Your task to perform on an android device: Open the calendar app, open the side menu, and click the "Day" option Image 0: 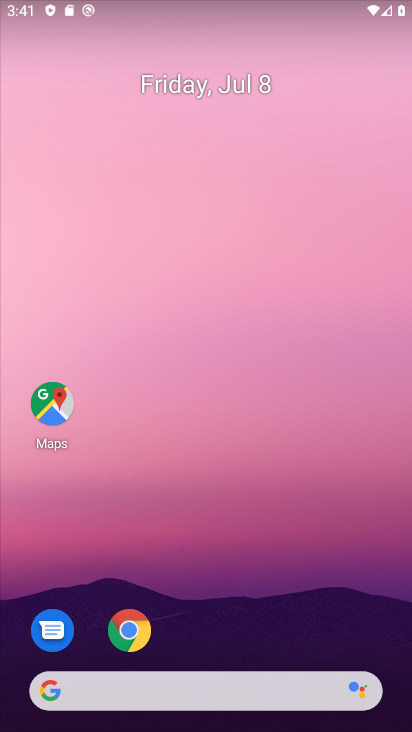
Step 0: drag from (21, 727) to (339, 47)
Your task to perform on an android device: Open the calendar app, open the side menu, and click the "Day" option Image 1: 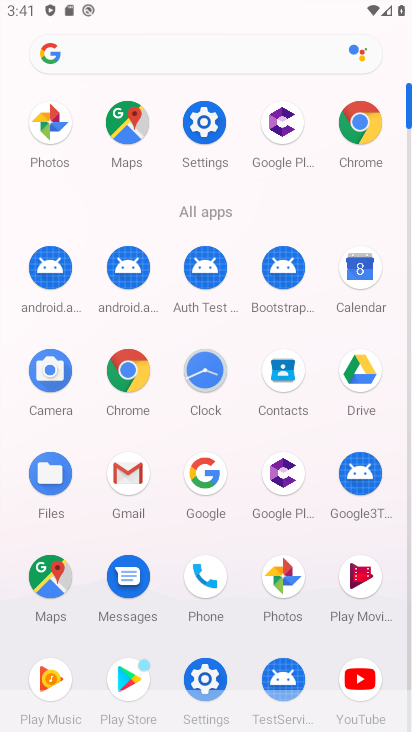
Step 1: click (363, 272)
Your task to perform on an android device: Open the calendar app, open the side menu, and click the "Day" option Image 2: 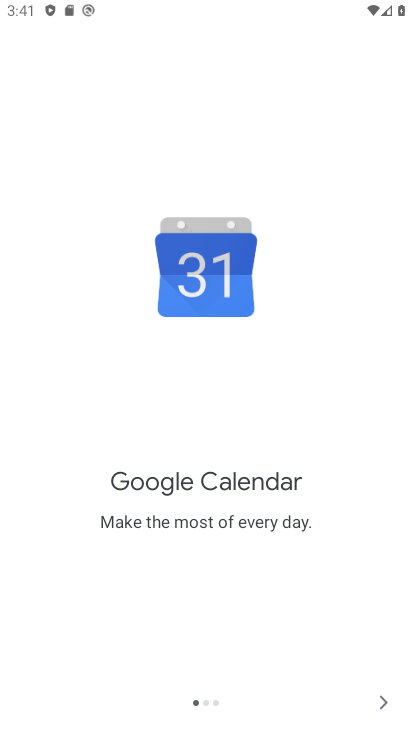
Step 2: click (387, 711)
Your task to perform on an android device: Open the calendar app, open the side menu, and click the "Day" option Image 3: 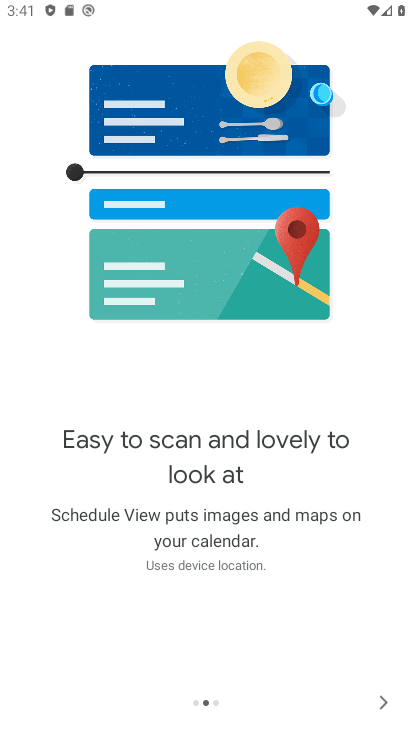
Step 3: click (376, 701)
Your task to perform on an android device: Open the calendar app, open the side menu, and click the "Day" option Image 4: 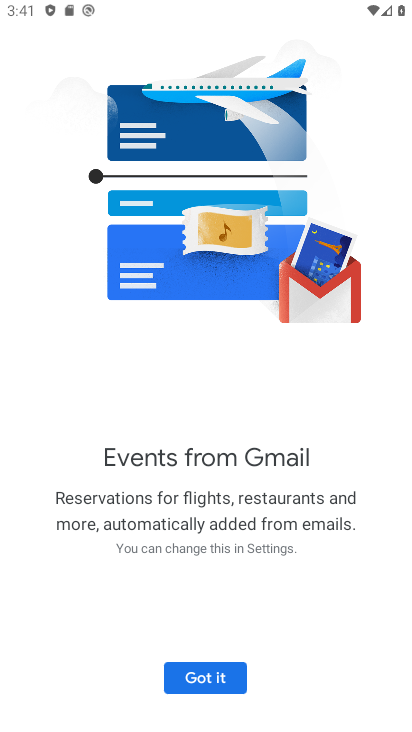
Step 4: click (215, 675)
Your task to perform on an android device: Open the calendar app, open the side menu, and click the "Day" option Image 5: 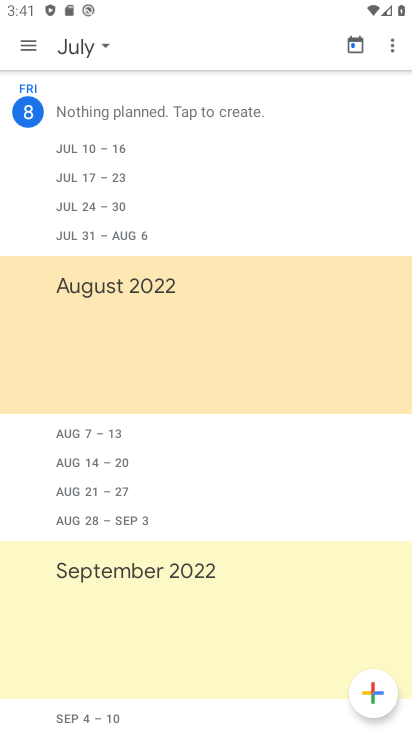
Step 5: click (39, 43)
Your task to perform on an android device: Open the calendar app, open the side menu, and click the "Day" option Image 6: 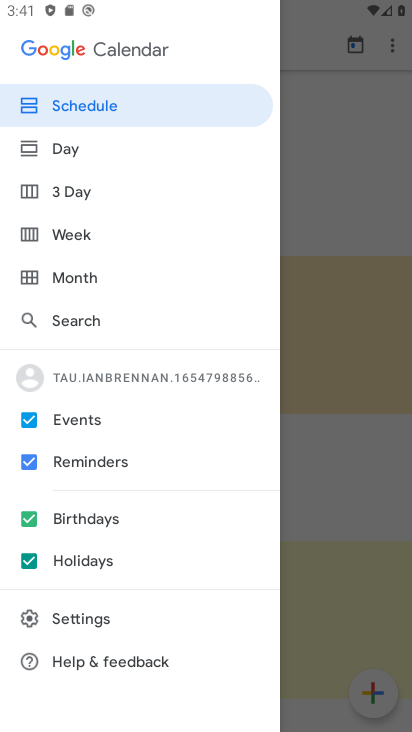
Step 6: click (78, 147)
Your task to perform on an android device: Open the calendar app, open the side menu, and click the "Day" option Image 7: 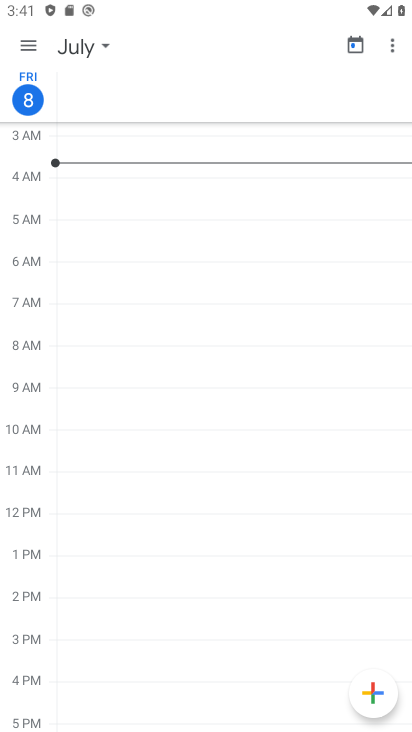
Step 7: click (64, 149)
Your task to perform on an android device: Open the calendar app, open the side menu, and click the "Day" option Image 8: 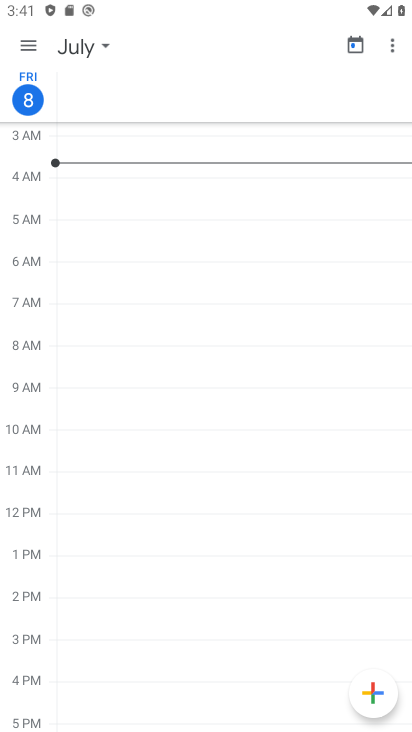
Step 8: task complete